Your task to perform on an android device: Open internet settings Image 0: 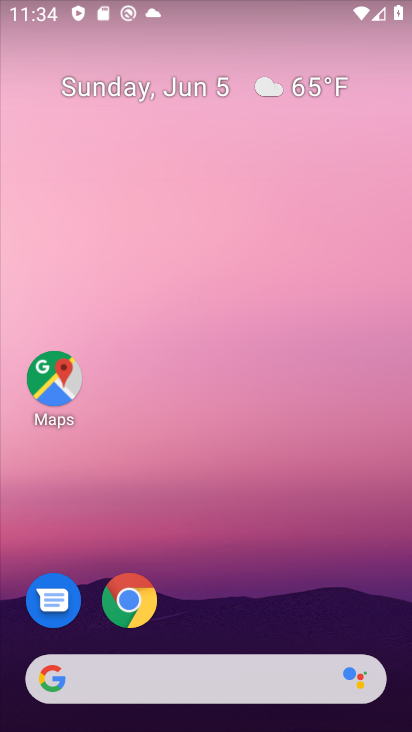
Step 0: click (125, 596)
Your task to perform on an android device: Open internet settings Image 1: 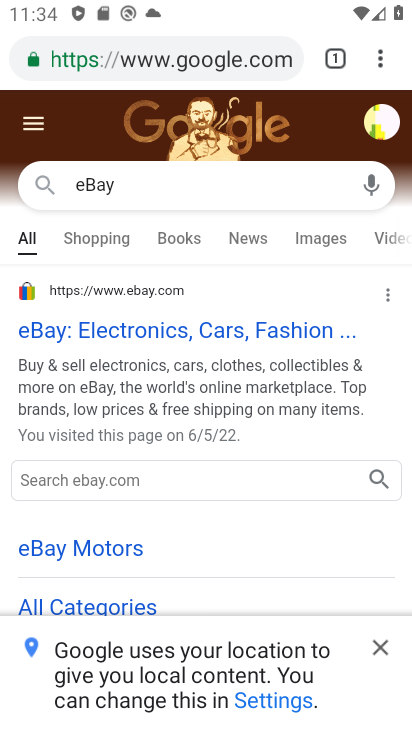
Step 1: press home button
Your task to perform on an android device: Open internet settings Image 2: 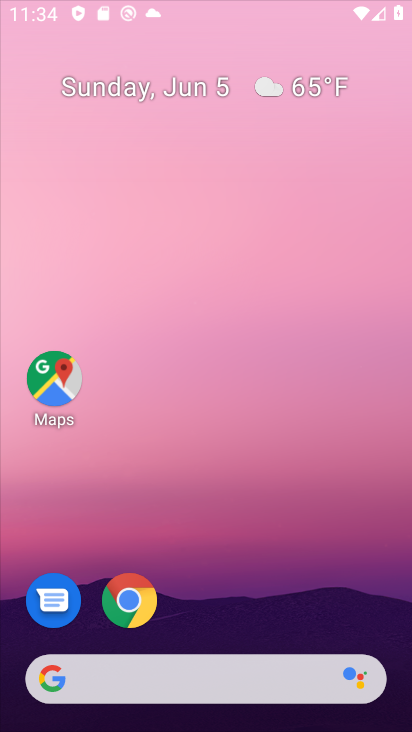
Step 2: press home button
Your task to perform on an android device: Open internet settings Image 3: 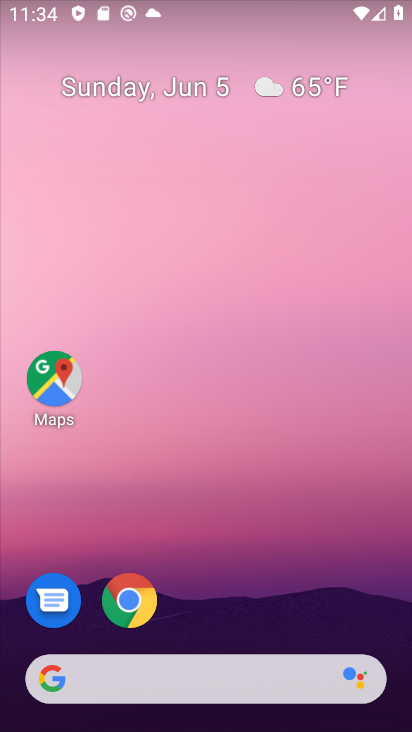
Step 3: drag from (405, 708) to (361, 19)
Your task to perform on an android device: Open internet settings Image 4: 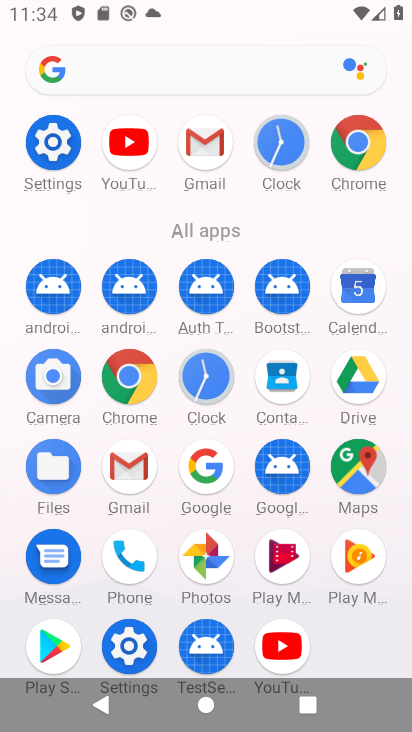
Step 4: click (43, 143)
Your task to perform on an android device: Open internet settings Image 5: 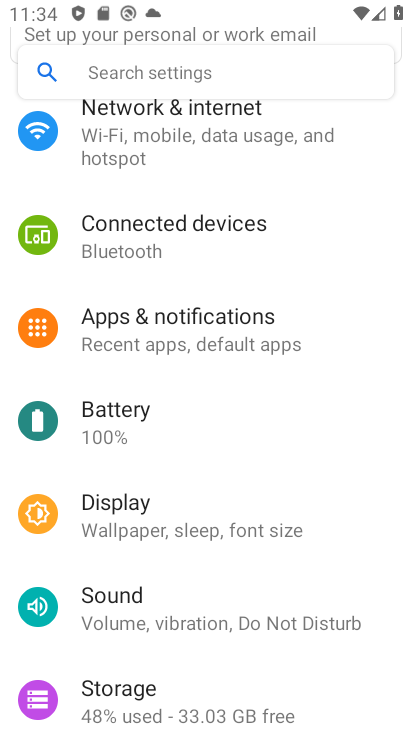
Step 5: click (165, 126)
Your task to perform on an android device: Open internet settings Image 6: 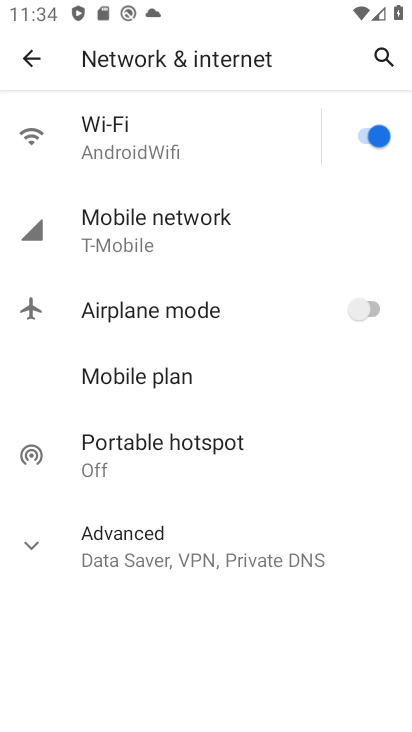
Step 6: click (110, 222)
Your task to perform on an android device: Open internet settings Image 7: 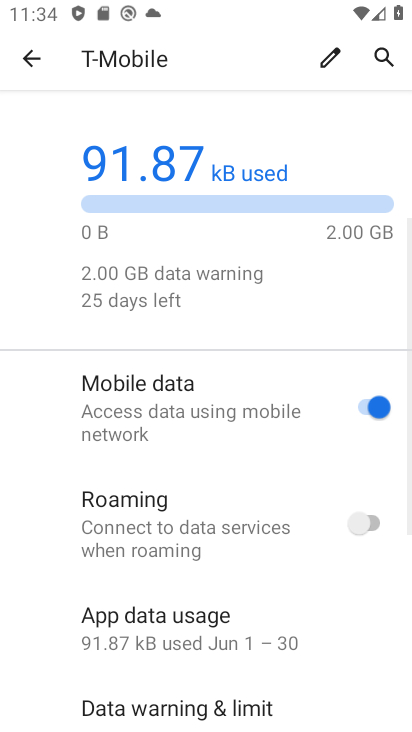
Step 7: click (23, 48)
Your task to perform on an android device: Open internet settings Image 8: 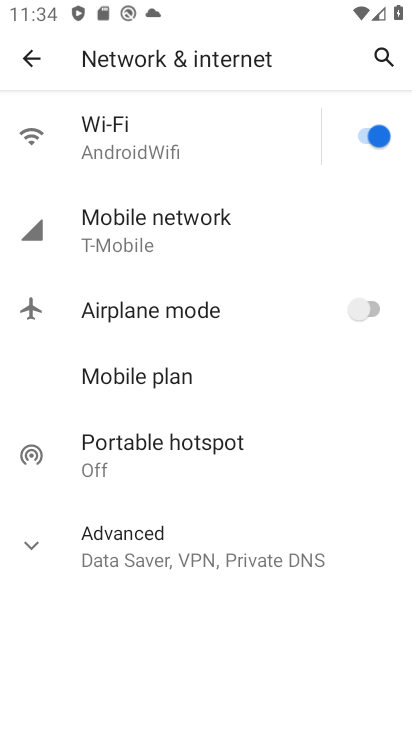
Step 8: click (43, 545)
Your task to perform on an android device: Open internet settings Image 9: 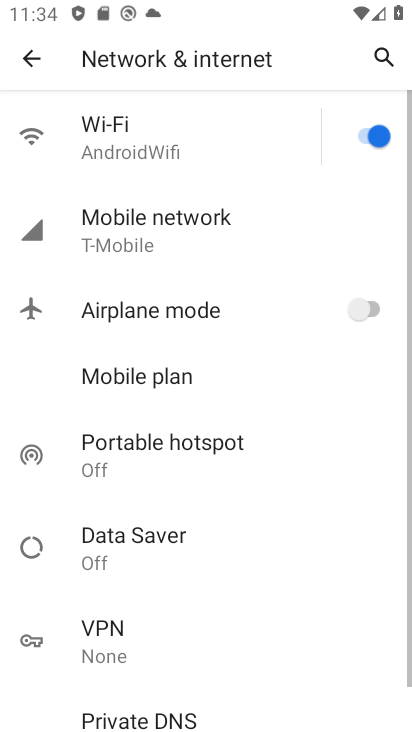
Step 9: task complete